Your task to perform on an android device: change your default location settings in chrome Image 0: 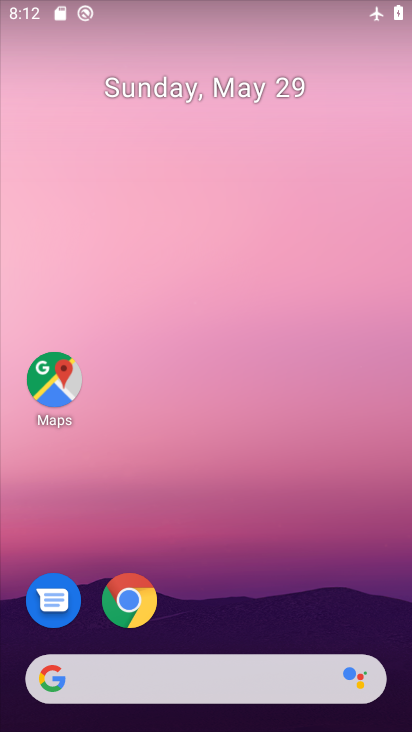
Step 0: click (130, 595)
Your task to perform on an android device: change your default location settings in chrome Image 1: 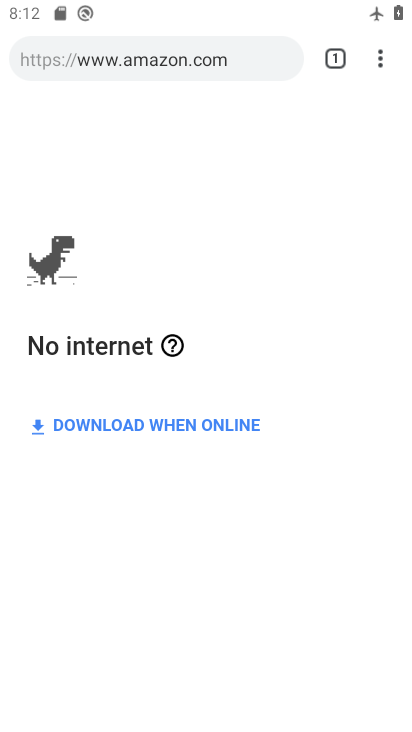
Step 1: click (365, 64)
Your task to perform on an android device: change your default location settings in chrome Image 2: 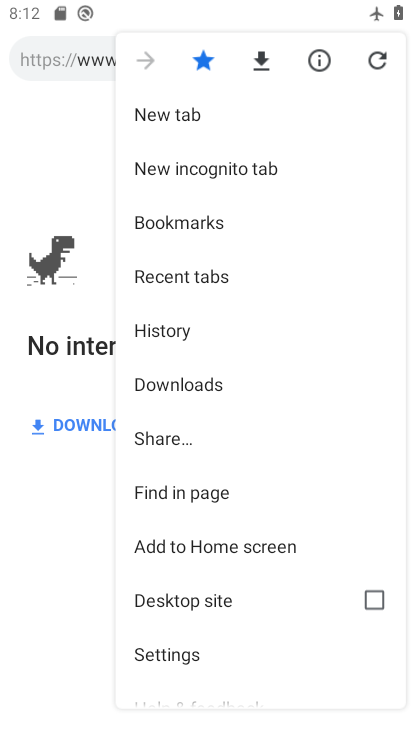
Step 2: drag from (199, 626) to (267, 226)
Your task to perform on an android device: change your default location settings in chrome Image 3: 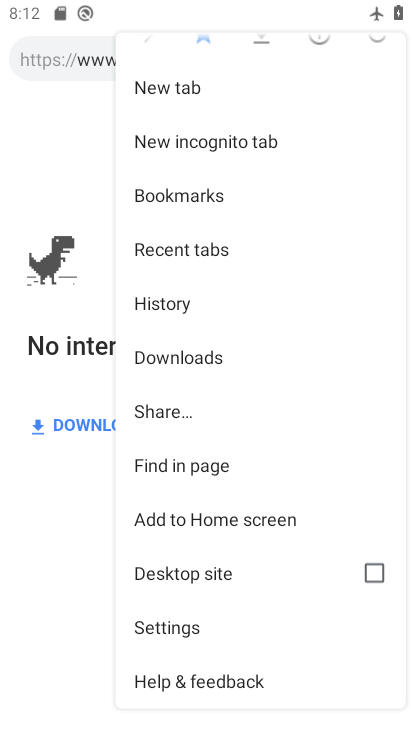
Step 3: click (165, 636)
Your task to perform on an android device: change your default location settings in chrome Image 4: 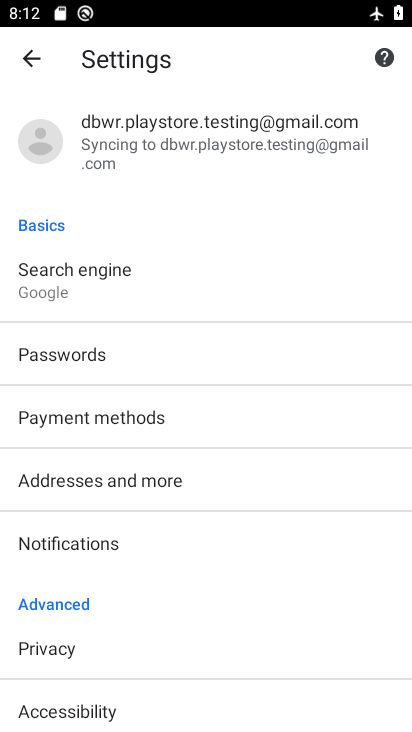
Step 4: drag from (158, 578) to (212, 129)
Your task to perform on an android device: change your default location settings in chrome Image 5: 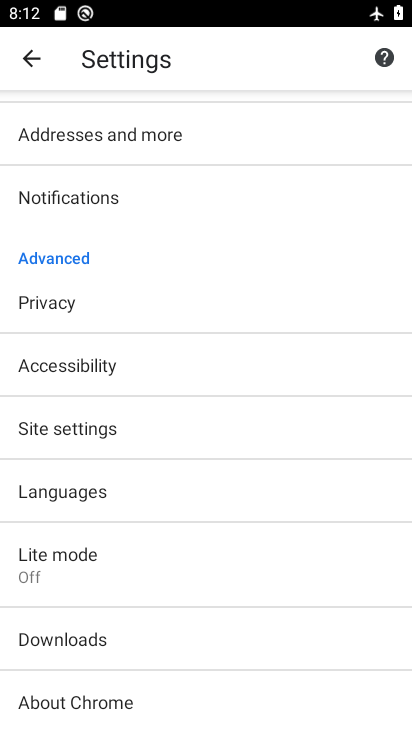
Step 5: click (107, 431)
Your task to perform on an android device: change your default location settings in chrome Image 6: 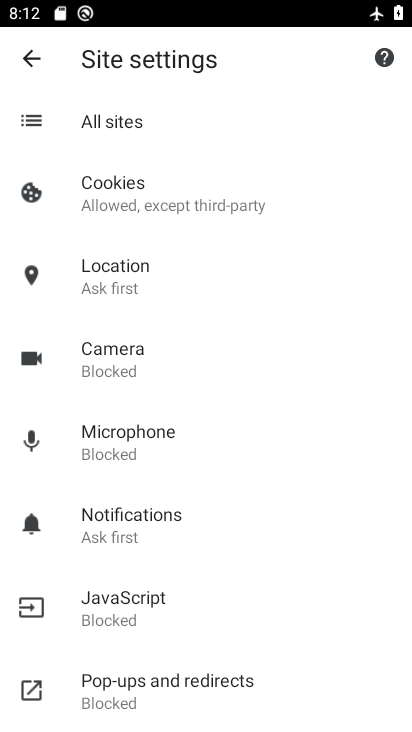
Step 6: click (121, 282)
Your task to perform on an android device: change your default location settings in chrome Image 7: 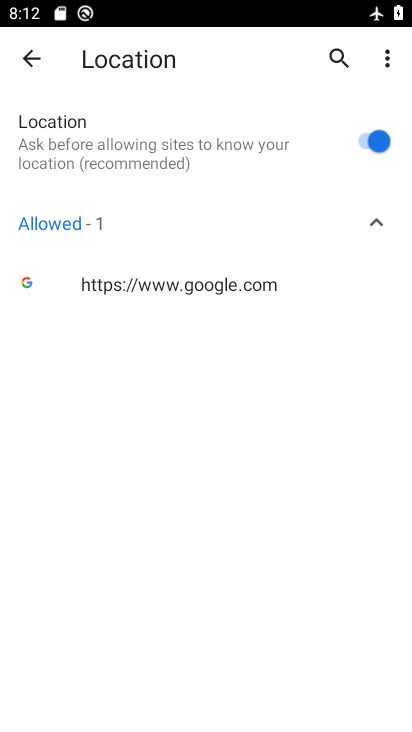
Step 7: click (358, 140)
Your task to perform on an android device: change your default location settings in chrome Image 8: 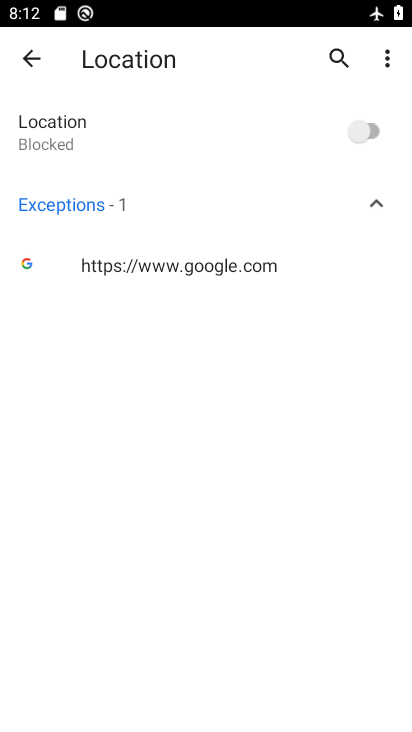
Step 8: task complete